Your task to perform on an android device: check battery use Image 0: 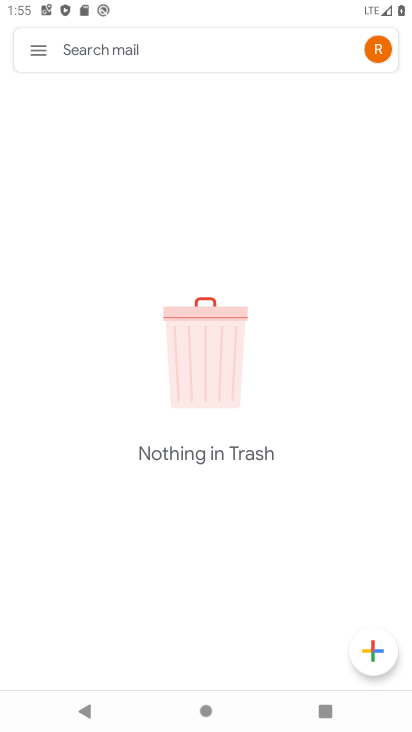
Step 0: press home button
Your task to perform on an android device: check battery use Image 1: 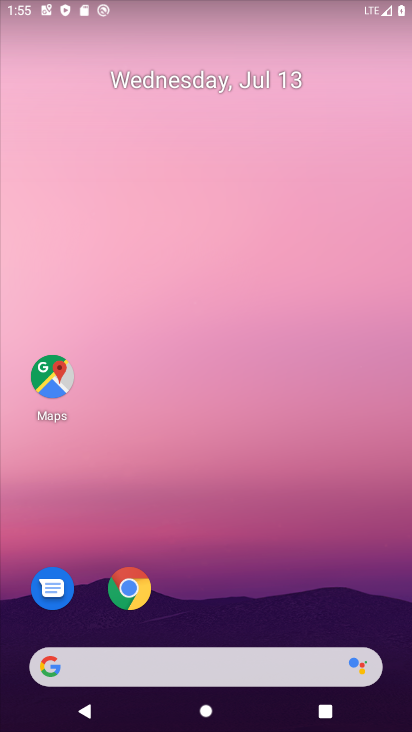
Step 1: drag from (398, 689) to (344, 25)
Your task to perform on an android device: check battery use Image 2: 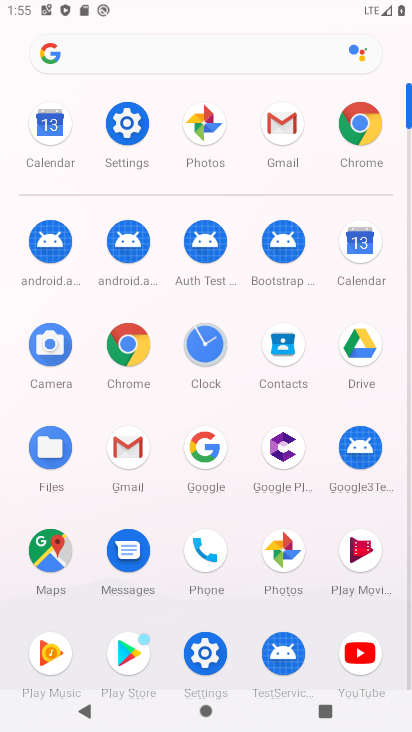
Step 2: click (139, 131)
Your task to perform on an android device: check battery use Image 3: 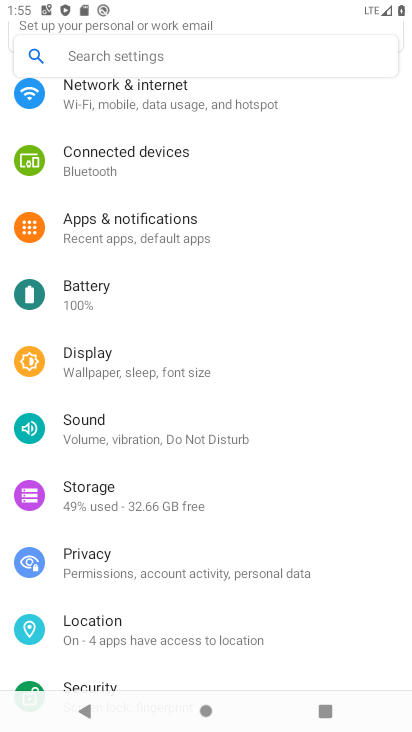
Step 3: drag from (281, 283) to (294, 590)
Your task to perform on an android device: check battery use Image 4: 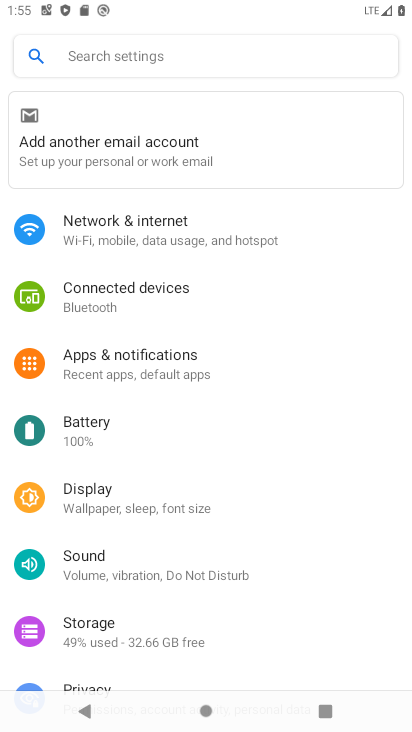
Step 4: drag from (295, 613) to (347, 265)
Your task to perform on an android device: check battery use Image 5: 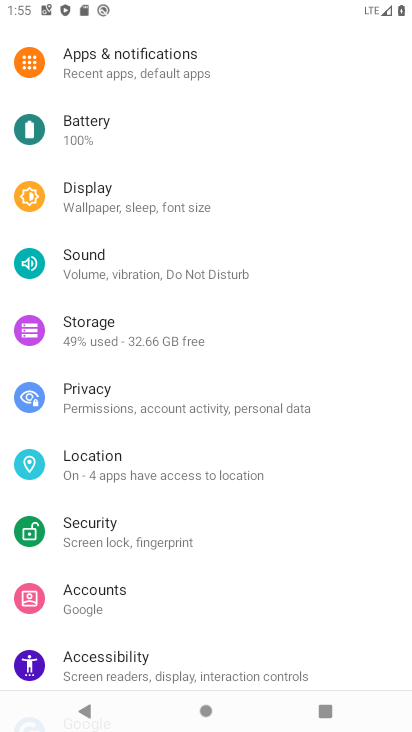
Step 5: click (65, 123)
Your task to perform on an android device: check battery use Image 6: 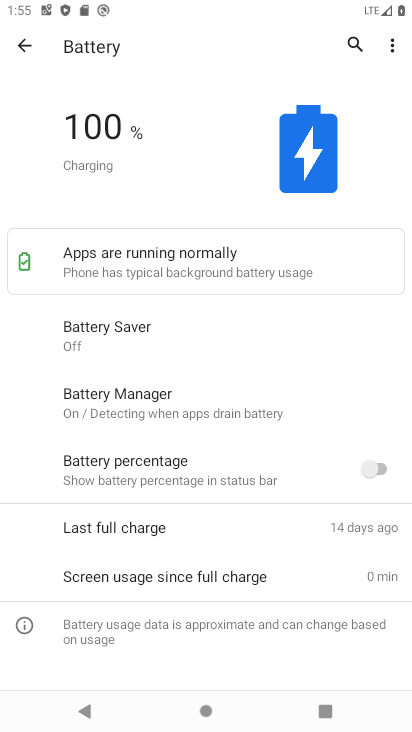
Step 6: click (391, 42)
Your task to perform on an android device: check battery use Image 7: 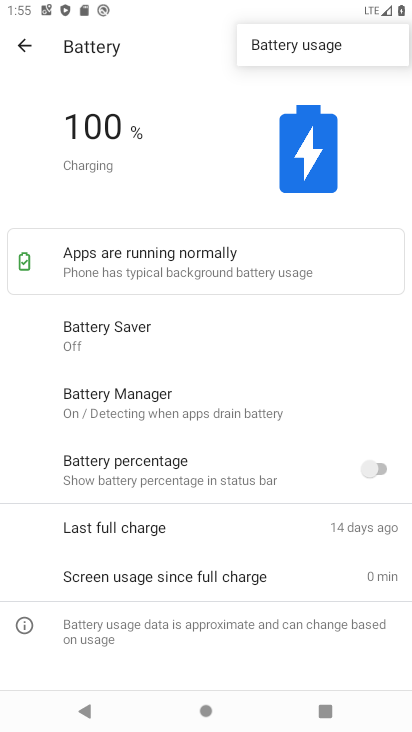
Step 7: click (331, 43)
Your task to perform on an android device: check battery use Image 8: 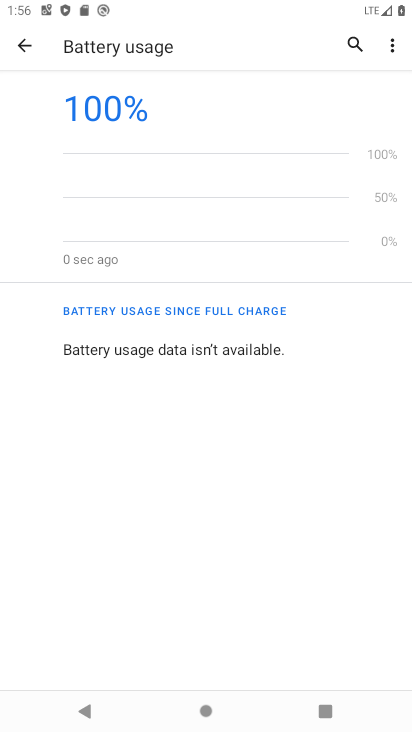
Step 8: task complete